Your task to perform on an android device: change keyboard looks Image 0: 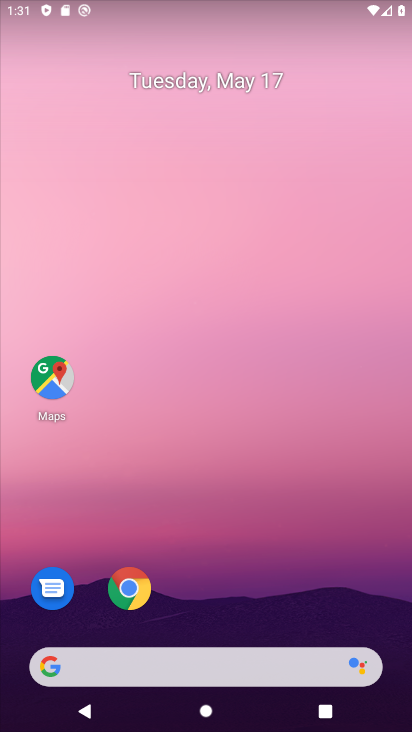
Step 0: drag from (227, 615) to (207, 69)
Your task to perform on an android device: change keyboard looks Image 1: 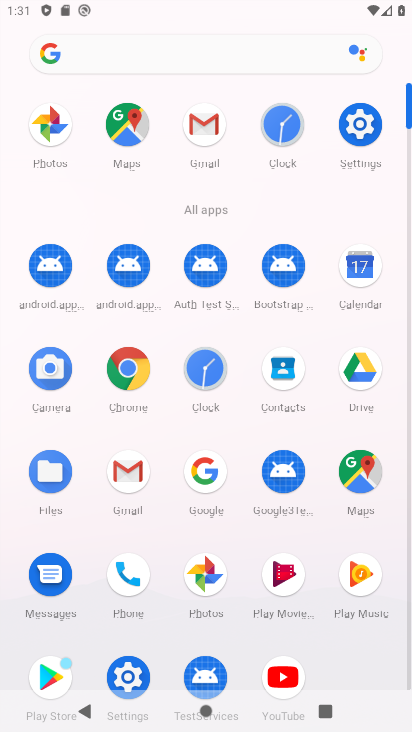
Step 1: click (360, 123)
Your task to perform on an android device: change keyboard looks Image 2: 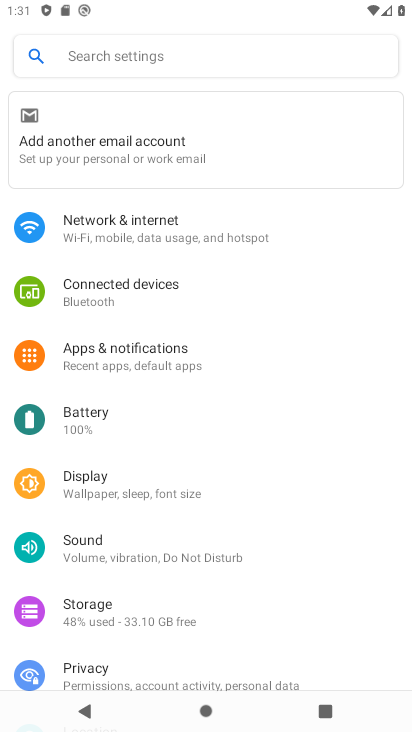
Step 2: drag from (166, 642) to (129, 81)
Your task to perform on an android device: change keyboard looks Image 3: 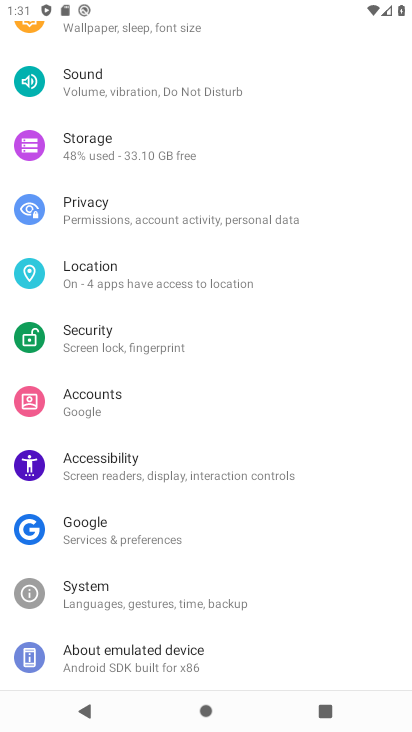
Step 3: click (116, 597)
Your task to perform on an android device: change keyboard looks Image 4: 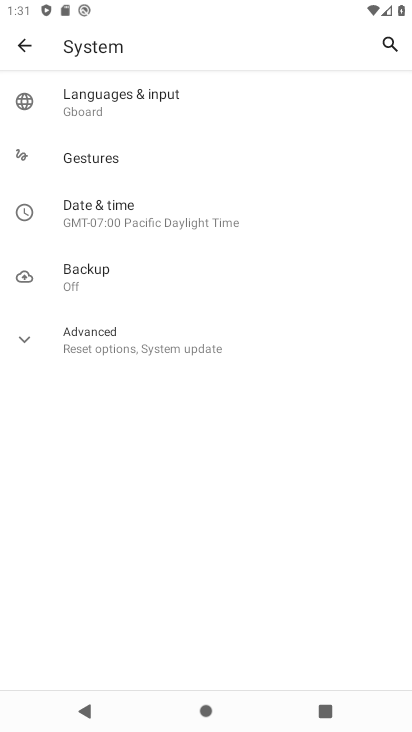
Step 4: click (54, 95)
Your task to perform on an android device: change keyboard looks Image 5: 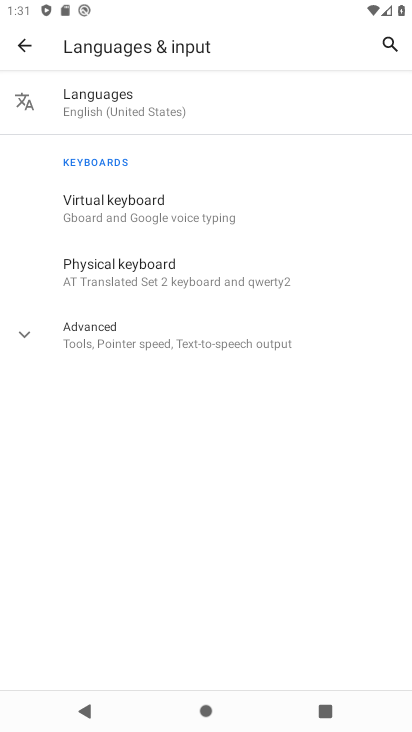
Step 5: click (132, 205)
Your task to perform on an android device: change keyboard looks Image 6: 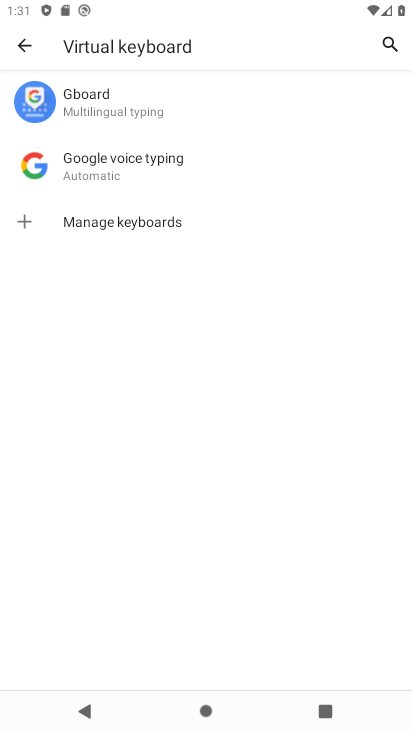
Step 6: click (130, 105)
Your task to perform on an android device: change keyboard looks Image 7: 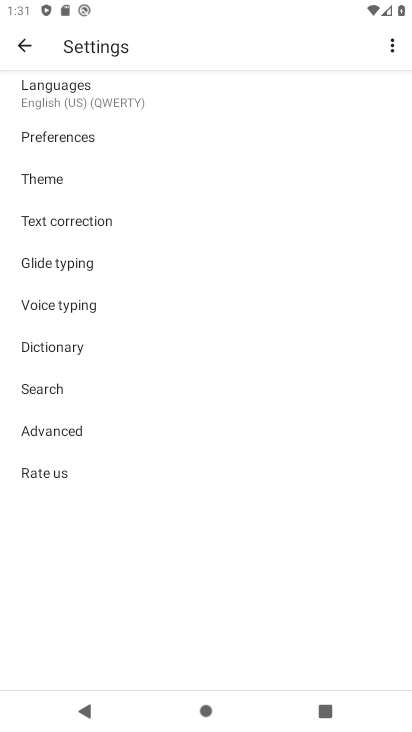
Step 7: click (46, 174)
Your task to perform on an android device: change keyboard looks Image 8: 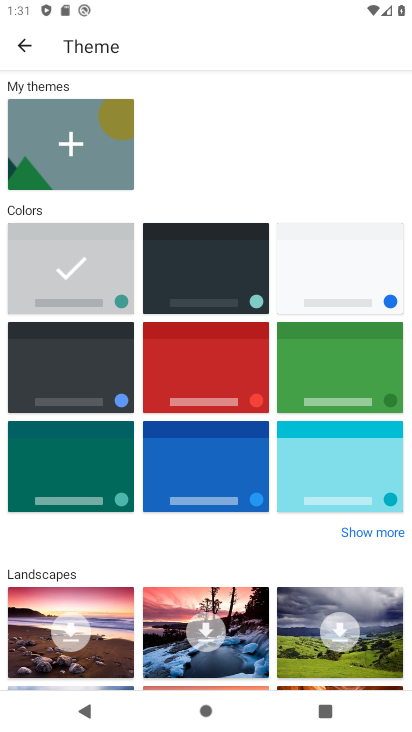
Step 8: drag from (140, 640) to (187, 363)
Your task to perform on an android device: change keyboard looks Image 9: 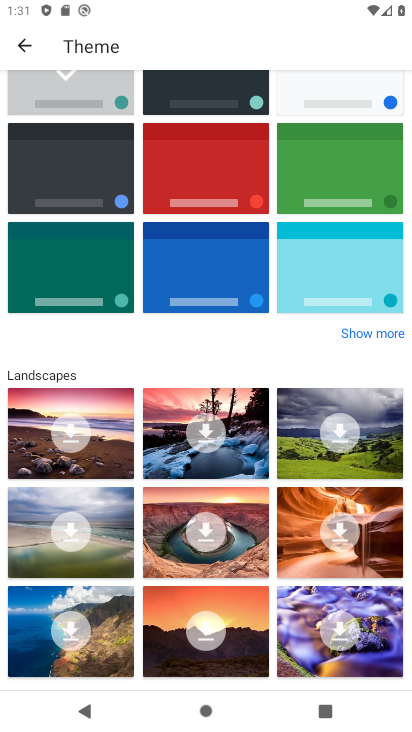
Step 9: click (189, 318)
Your task to perform on an android device: change keyboard looks Image 10: 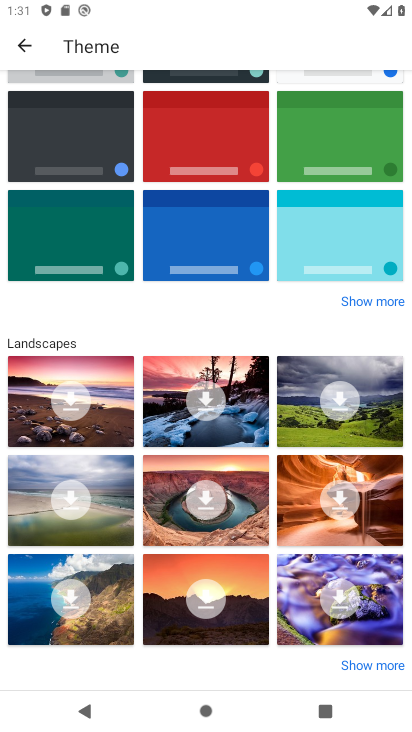
Step 10: click (62, 606)
Your task to perform on an android device: change keyboard looks Image 11: 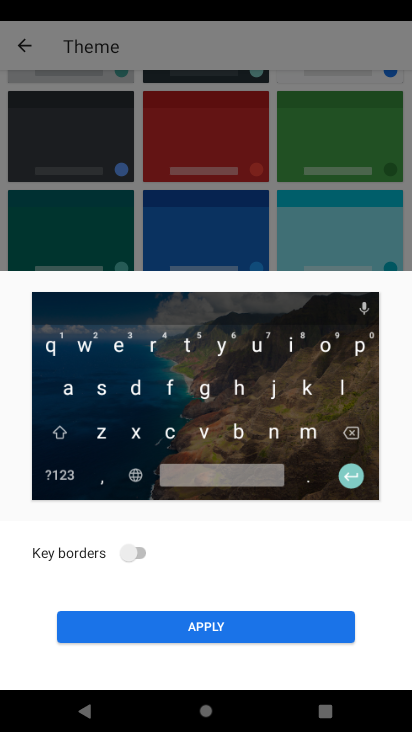
Step 11: click (120, 629)
Your task to perform on an android device: change keyboard looks Image 12: 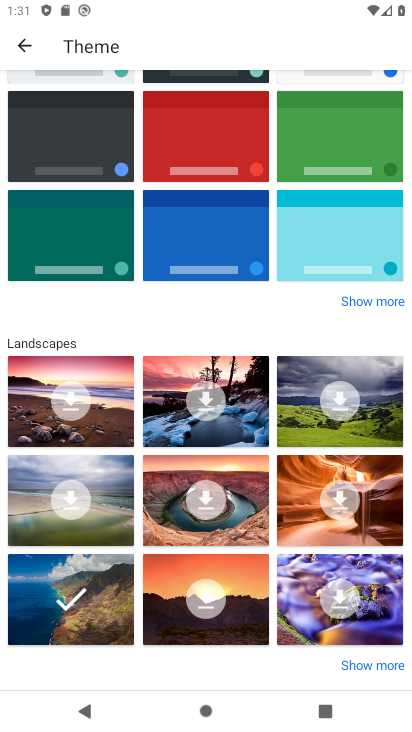
Step 12: task complete